Your task to perform on an android device: toggle airplane mode Image 0: 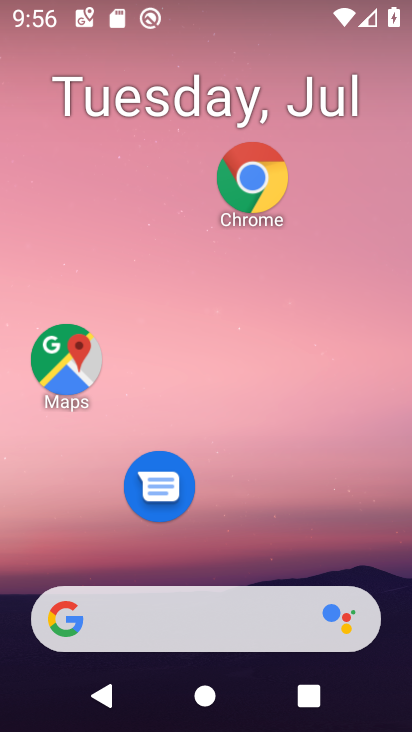
Step 0: drag from (233, 623) to (351, 245)
Your task to perform on an android device: toggle airplane mode Image 1: 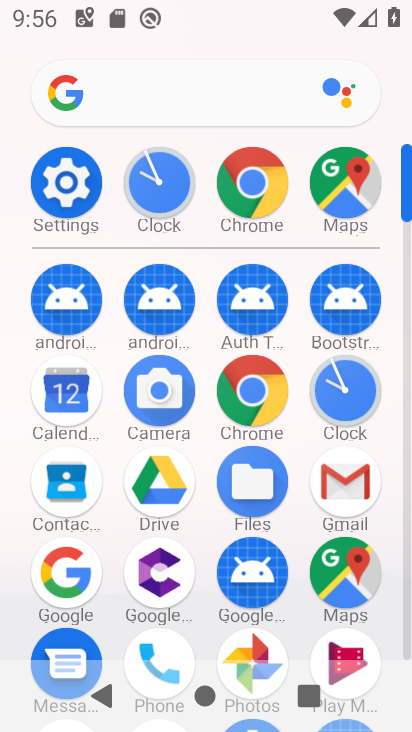
Step 1: click (62, 191)
Your task to perform on an android device: toggle airplane mode Image 2: 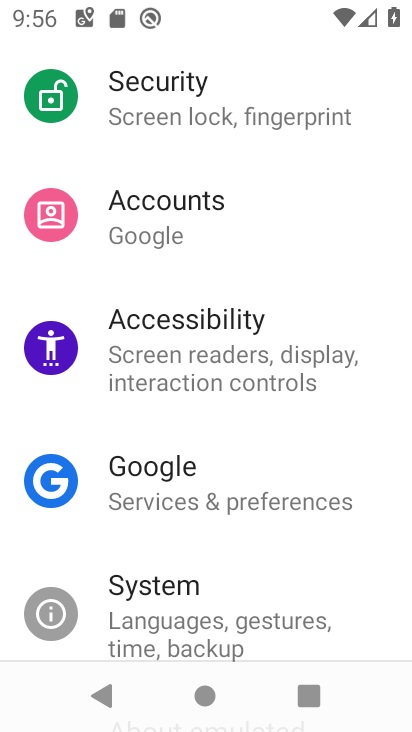
Step 2: drag from (173, 326) to (171, 617)
Your task to perform on an android device: toggle airplane mode Image 3: 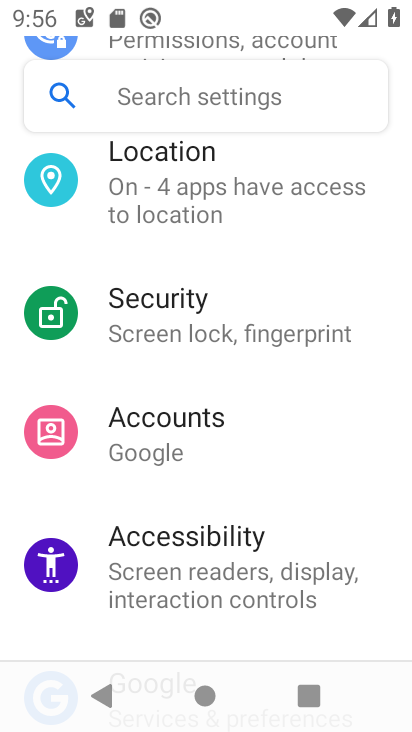
Step 3: drag from (203, 457) to (199, 654)
Your task to perform on an android device: toggle airplane mode Image 4: 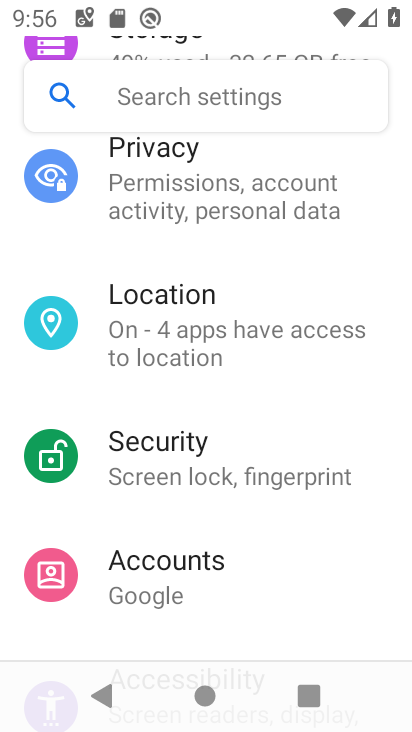
Step 4: drag from (189, 376) to (178, 672)
Your task to perform on an android device: toggle airplane mode Image 5: 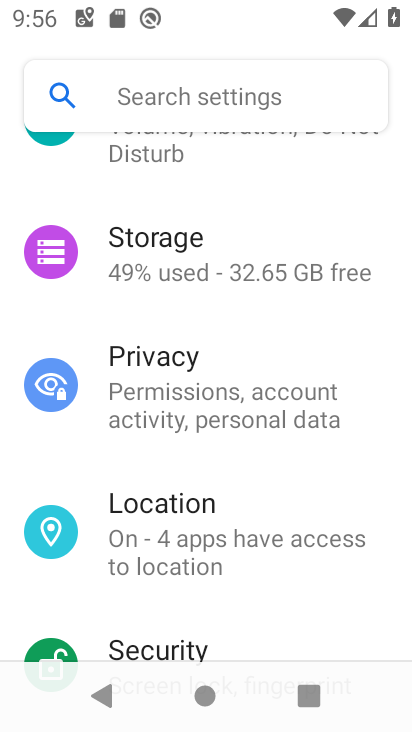
Step 5: drag from (195, 456) to (177, 647)
Your task to perform on an android device: toggle airplane mode Image 6: 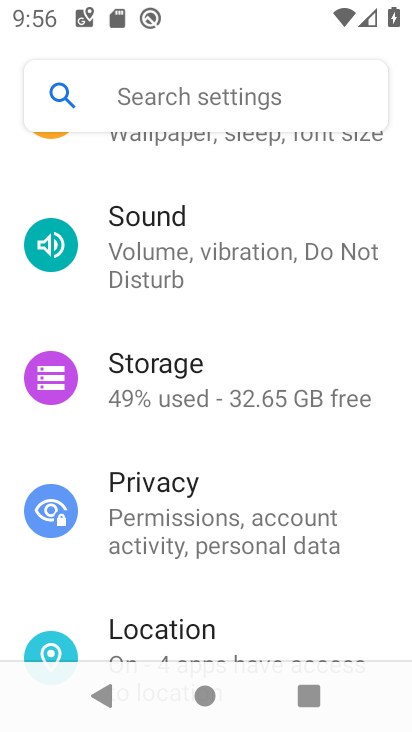
Step 6: drag from (165, 511) to (165, 691)
Your task to perform on an android device: toggle airplane mode Image 7: 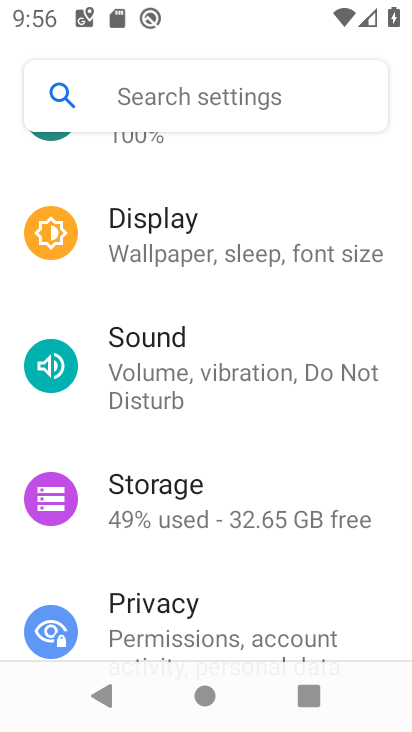
Step 7: drag from (200, 320) to (178, 689)
Your task to perform on an android device: toggle airplane mode Image 8: 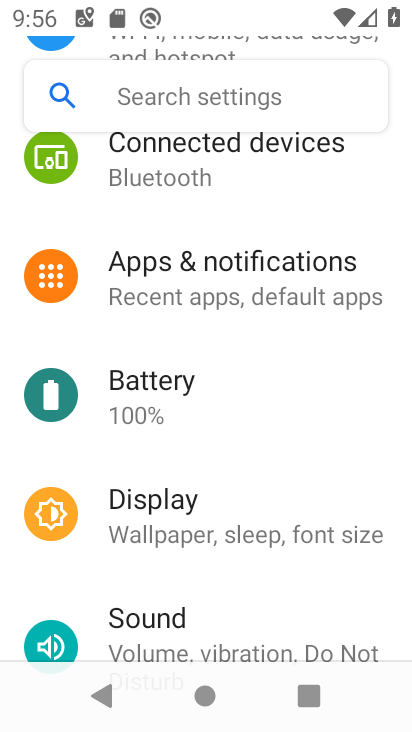
Step 8: drag from (185, 372) to (172, 661)
Your task to perform on an android device: toggle airplane mode Image 9: 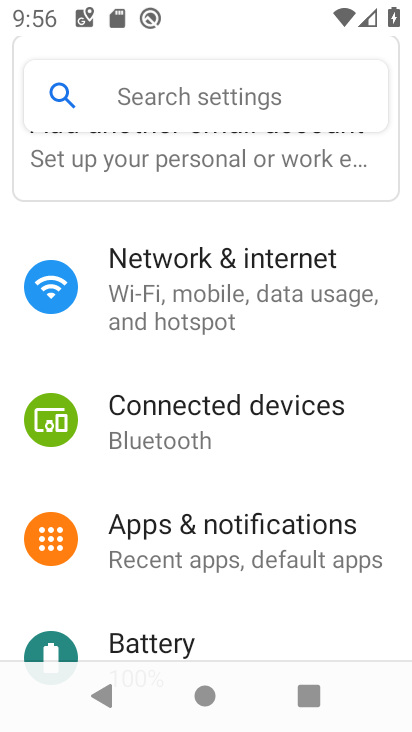
Step 9: click (196, 284)
Your task to perform on an android device: toggle airplane mode Image 10: 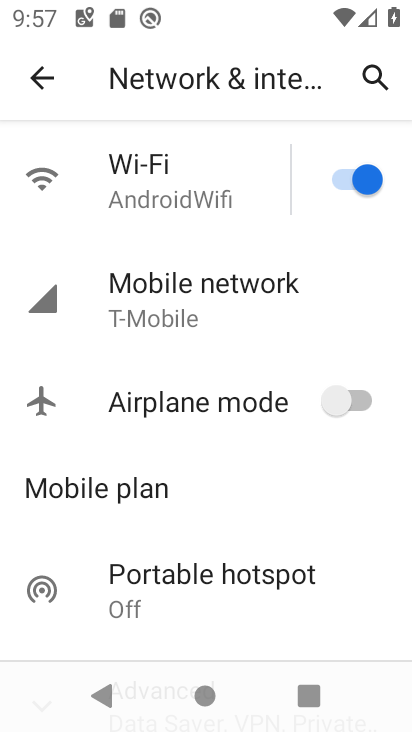
Step 10: click (241, 408)
Your task to perform on an android device: toggle airplane mode Image 11: 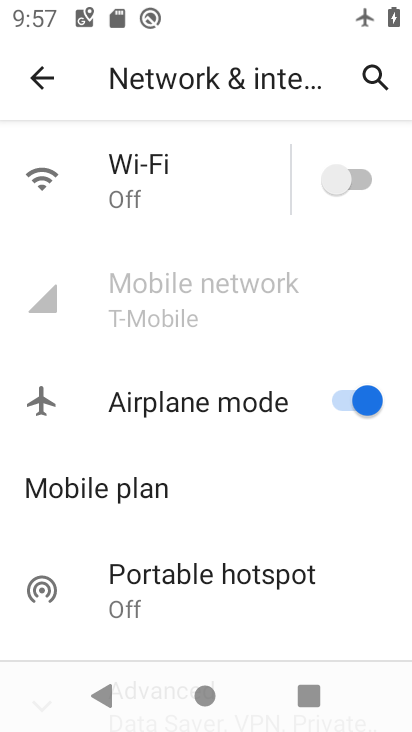
Step 11: task complete